Your task to perform on an android device: change timer sound Image 0: 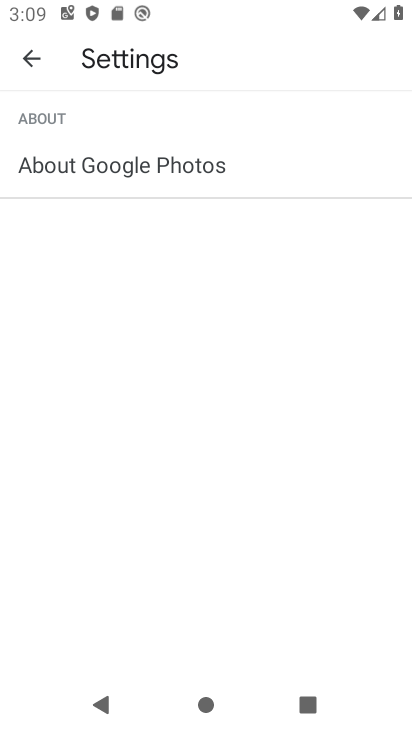
Step 0: press home button
Your task to perform on an android device: change timer sound Image 1: 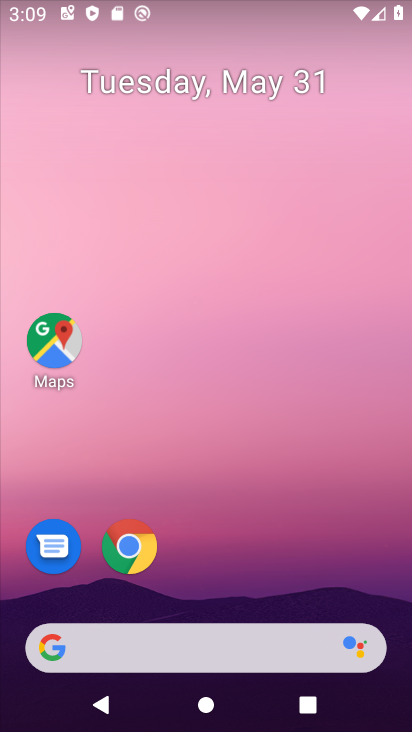
Step 1: drag from (339, 539) to (277, 46)
Your task to perform on an android device: change timer sound Image 2: 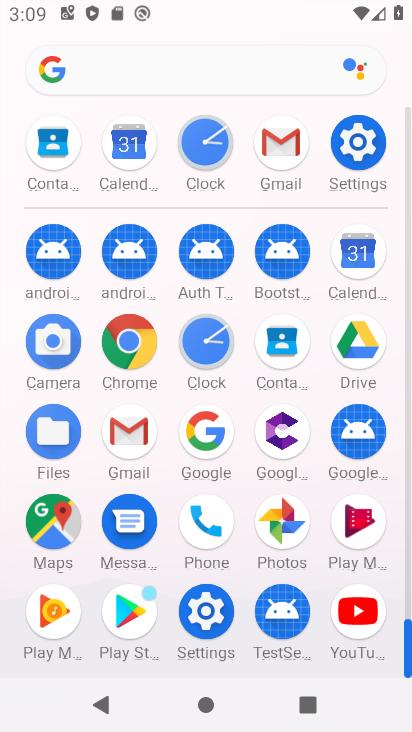
Step 2: click (214, 143)
Your task to perform on an android device: change timer sound Image 3: 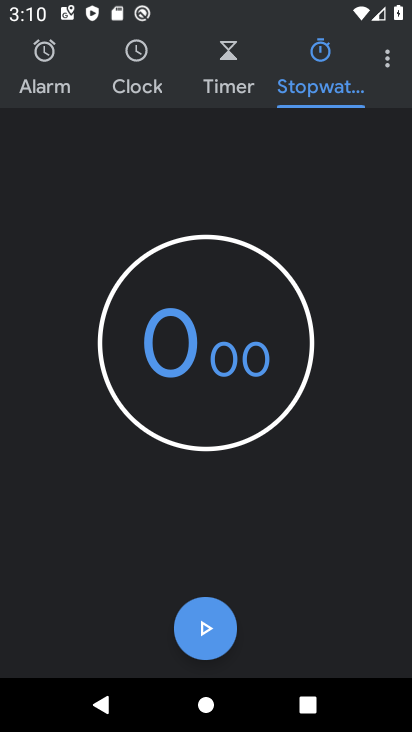
Step 3: click (223, 82)
Your task to perform on an android device: change timer sound Image 4: 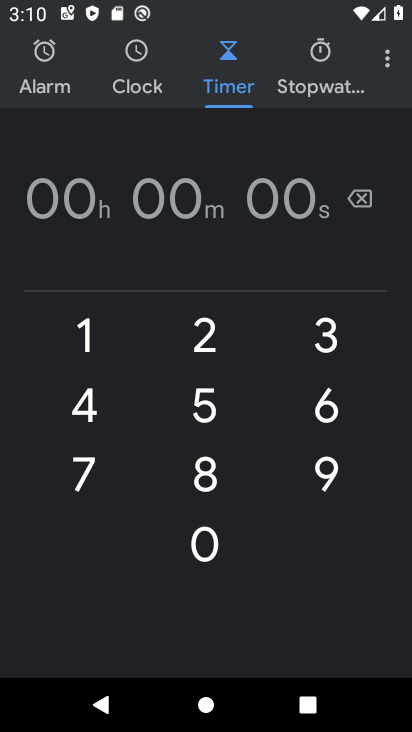
Step 4: click (393, 63)
Your task to perform on an android device: change timer sound Image 5: 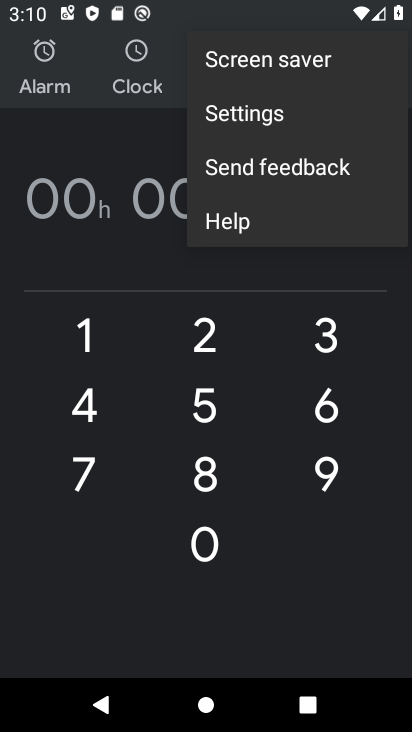
Step 5: click (345, 107)
Your task to perform on an android device: change timer sound Image 6: 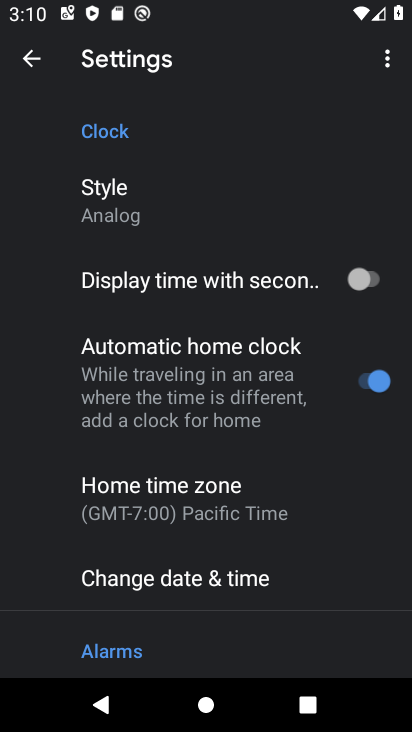
Step 6: drag from (269, 562) to (324, 5)
Your task to perform on an android device: change timer sound Image 7: 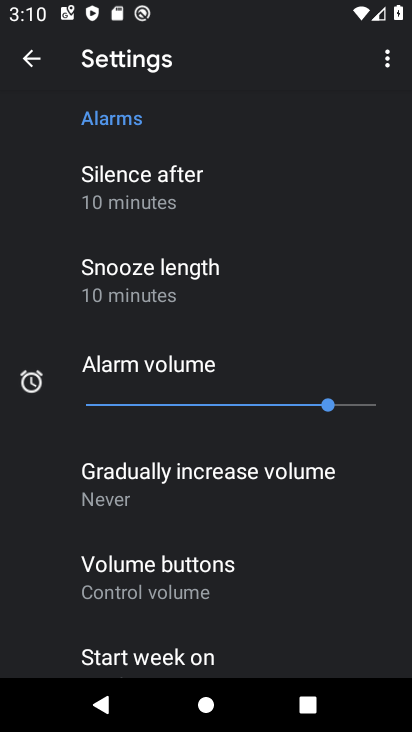
Step 7: drag from (272, 611) to (308, 0)
Your task to perform on an android device: change timer sound Image 8: 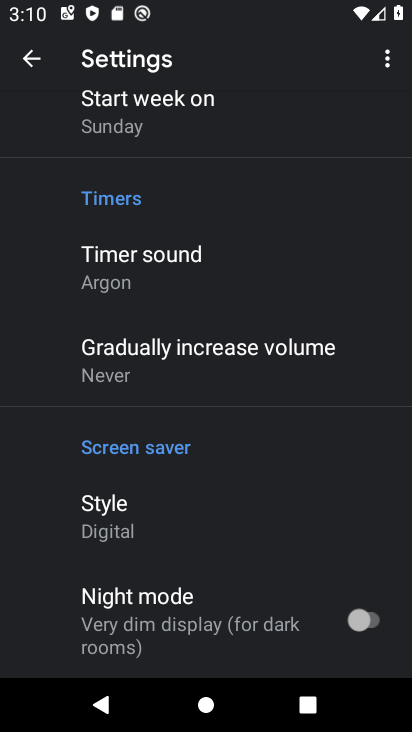
Step 8: click (266, 265)
Your task to perform on an android device: change timer sound Image 9: 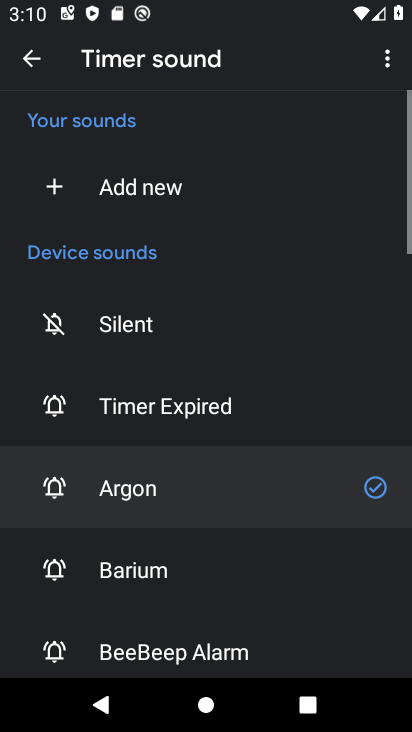
Step 9: click (143, 569)
Your task to perform on an android device: change timer sound Image 10: 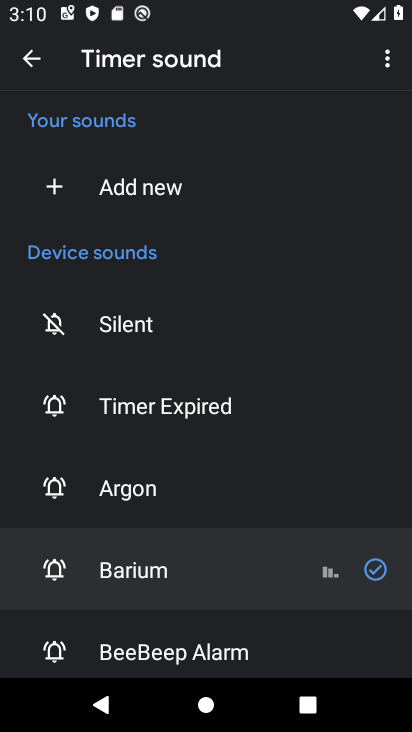
Step 10: task complete